Your task to perform on an android device: What's the weather going to be tomorrow? Image 0: 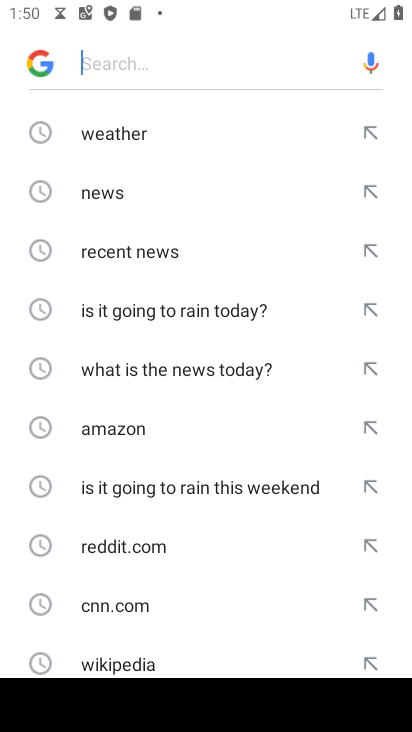
Step 0: click (135, 124)
Your task to perform on an android device: What's the weather going to be tomorrow? Image 1: 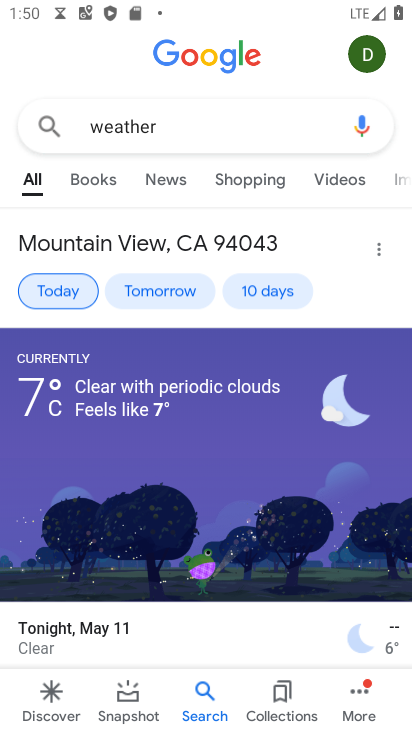
Step 1: click (154, 280)
Your task to perform on an android device: What's the weather going to be tomorrow? Image 2: 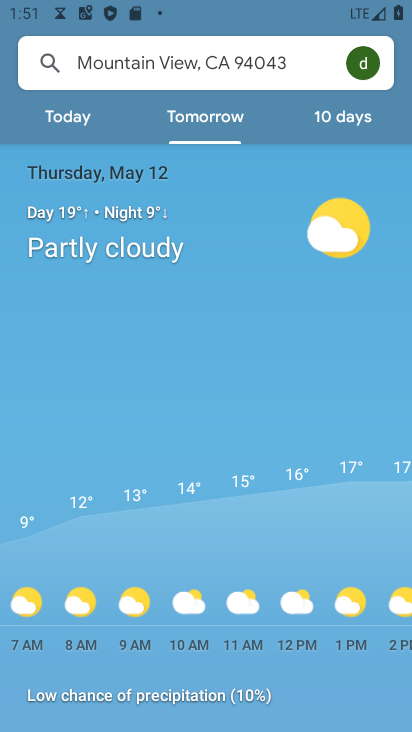
Step 2: task complete